Your task to perform on an android device: See recent photos Image 0: 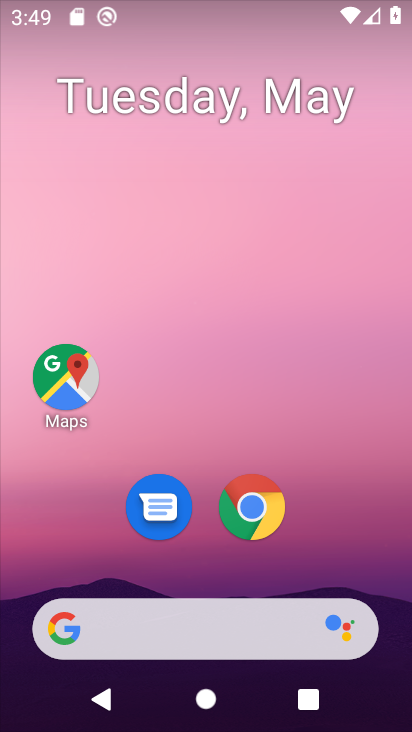
Step 0: drag from (189, 569) to (311, 58)
Your task to perform on an android device: See recent photos Image 1: 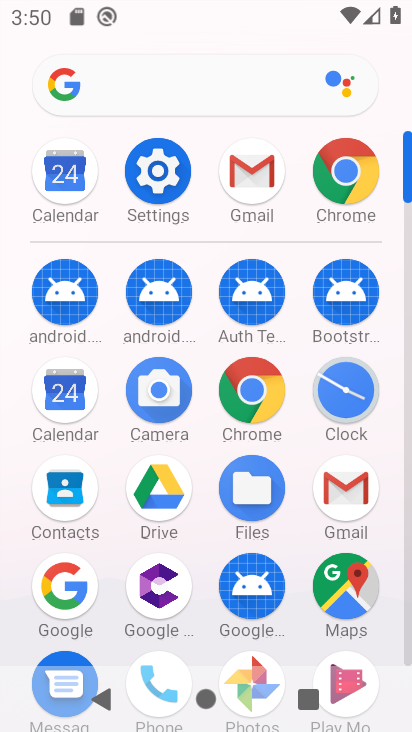
Step 1: drag from (286, 534) to (318, 256)
Your task to perform on an android device: See recent photos Image 2: 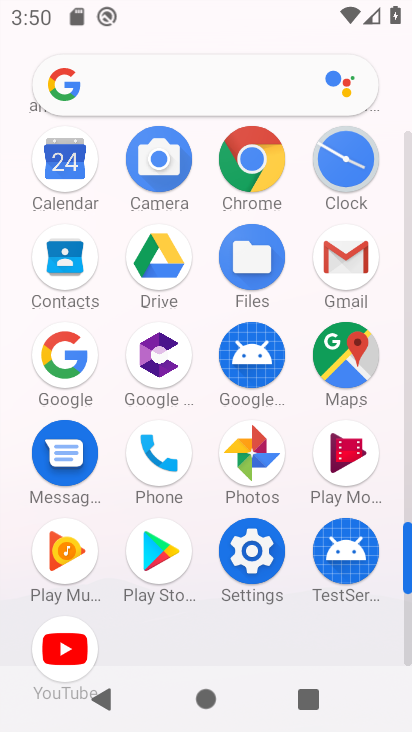
Step 2: click (259, 451)
Your task to perform on an android device: See recent photos Image 3: 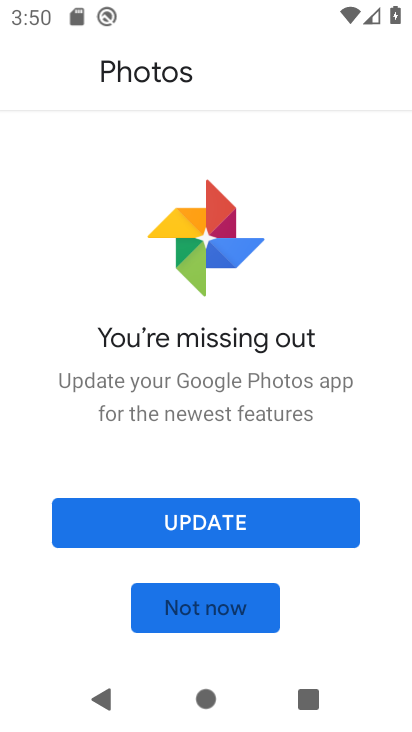
Step 3: click (137, 530)
Your task to perform on an android device: See recent photos Image 4: 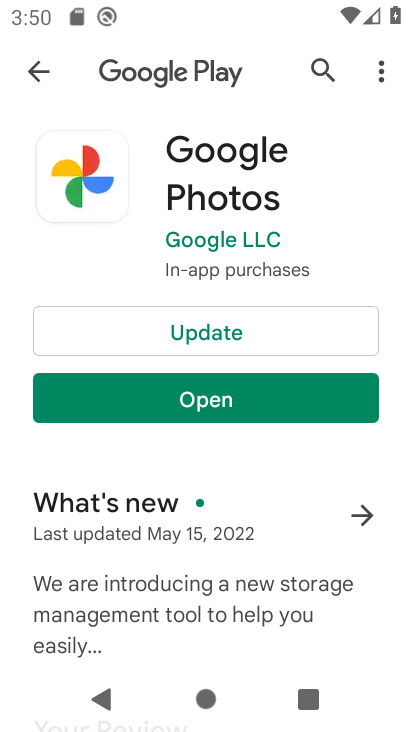
Step 4: click (179, 339)
Your task to perform on an android device: See recent photos Image 5: 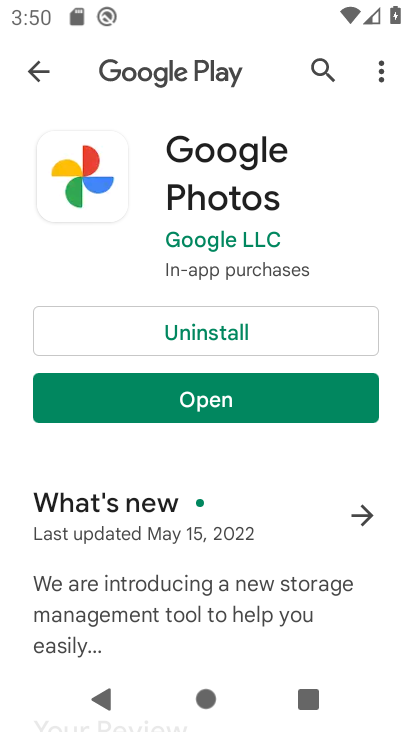
Step 5: click (225, 404)
Your task to perform on an android device: See recent photos Image 6: 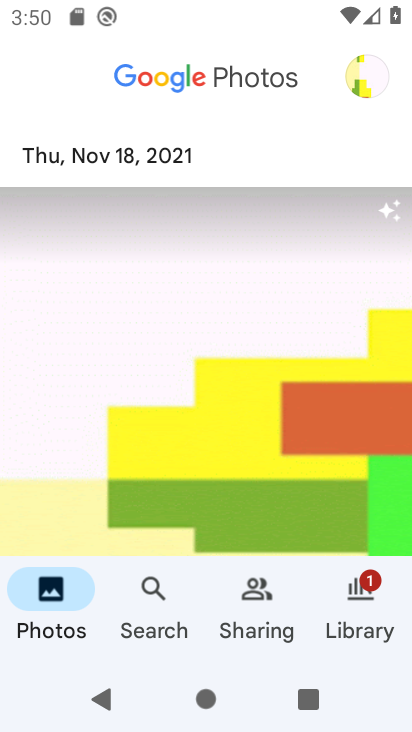
Step 6: task complete